Your task to perform on an android device: turn vacation reply on in the gmail app Image 0: 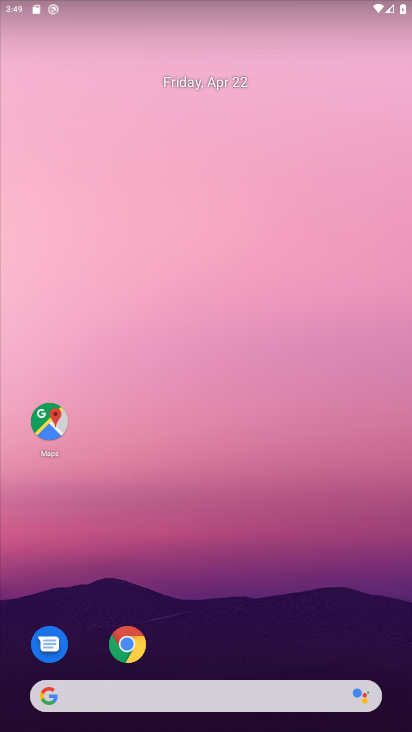
Step 0: drag from (158, 676) to (158, 270)
Your task to perform on an android device: turn vacation reply on in the gmail app Image 1: 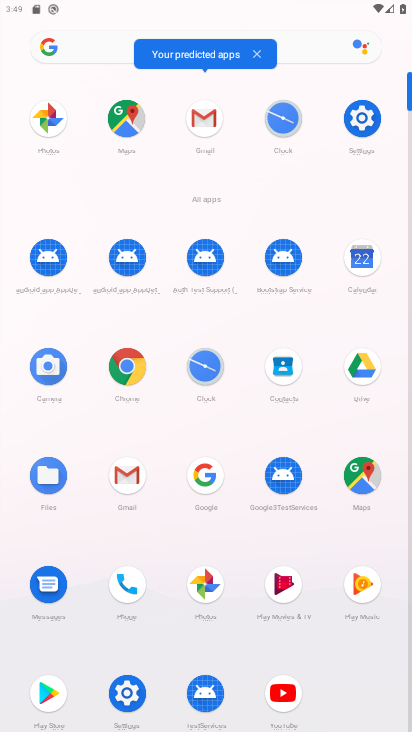
Step 1: click (117, 482)
Your task to perform on an android device: turn vacation reply on in the gmail app Image 2: 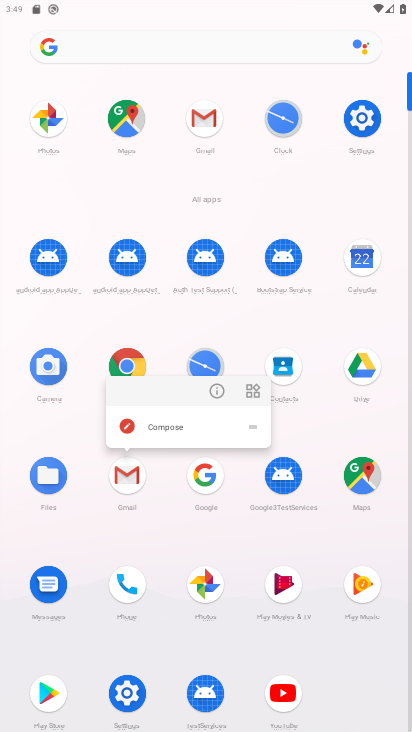
Step 2: click (127, 470)
Your task to perform on an android device: turn vacation reply on in the gmail app Image 3: 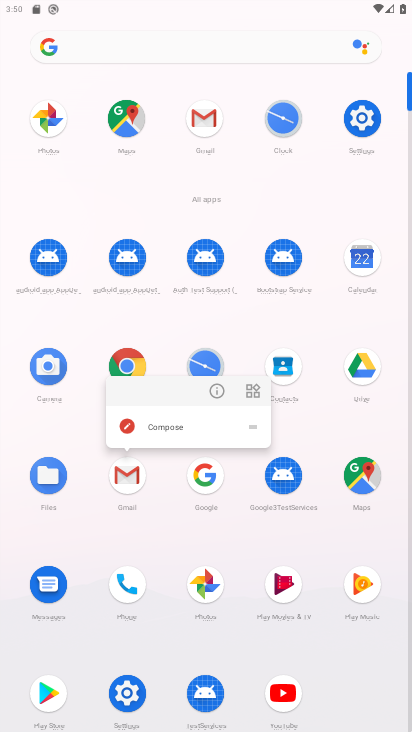
Step 3: click (129, 472)
Your task to perform on an android device: turn vacation reply on in the gmail app Image 4: 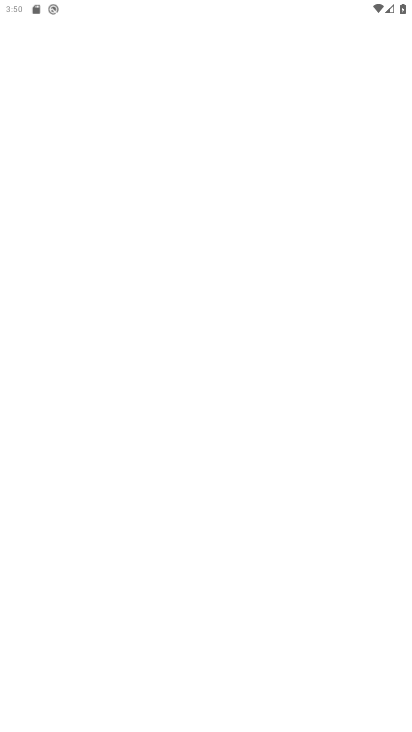
Step 4: click (129, 472)
Your task to perform on an android device: turn vacation reply on in the gmail app Image 5: 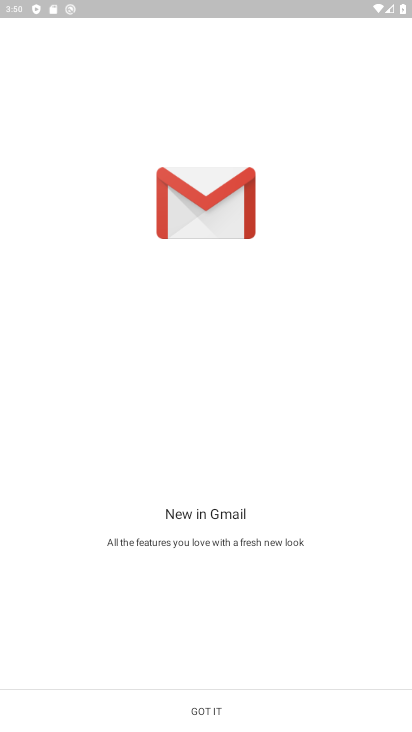
Step 5: click (201, 699)
Your task to perform on an android device: turn vacation reply on in the gmail app Image 6: 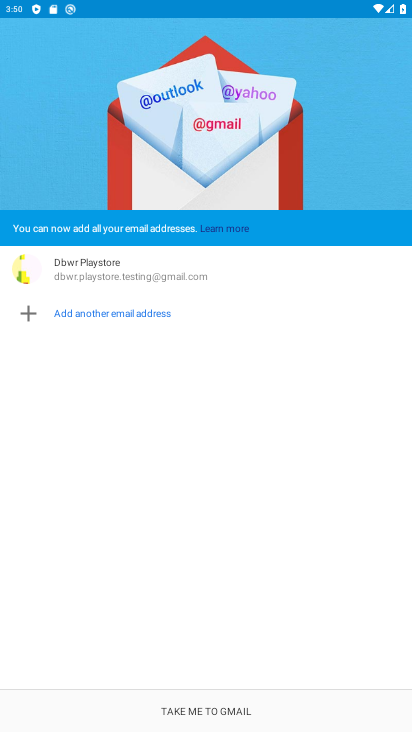
Step 6: click (196, 718)
Your task to perform on an android device: turn vacation reply on in the gmail app Image 7: 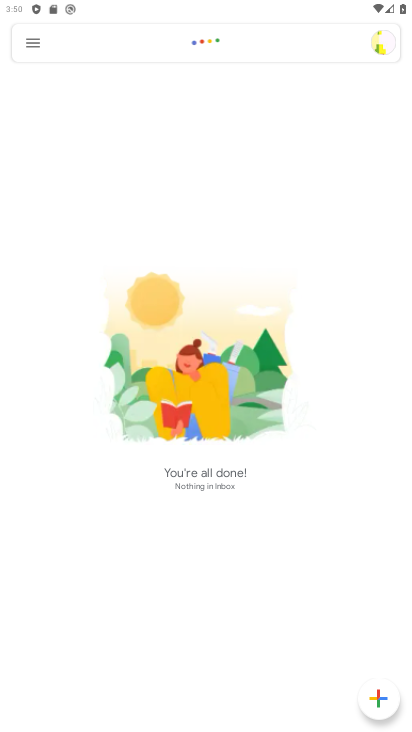
Step 7: click (39, 41)
Your task to perform on an android device: turn vacation reply on in the gmail app Image 8: 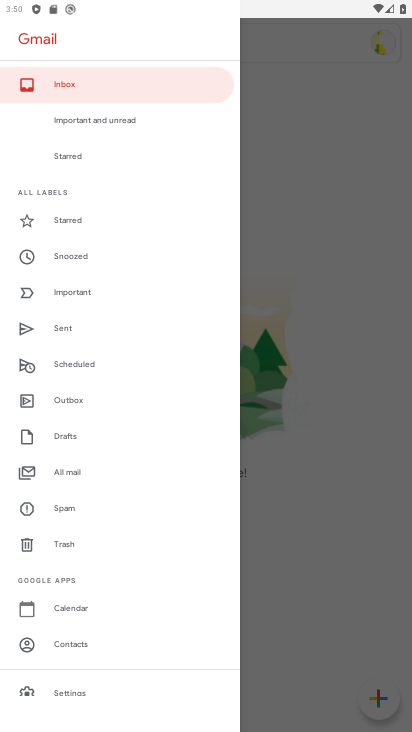
Step 8: click (69, 697)
Your task to perform on an android device: turn vacation reply on in the gmail app Image 9: 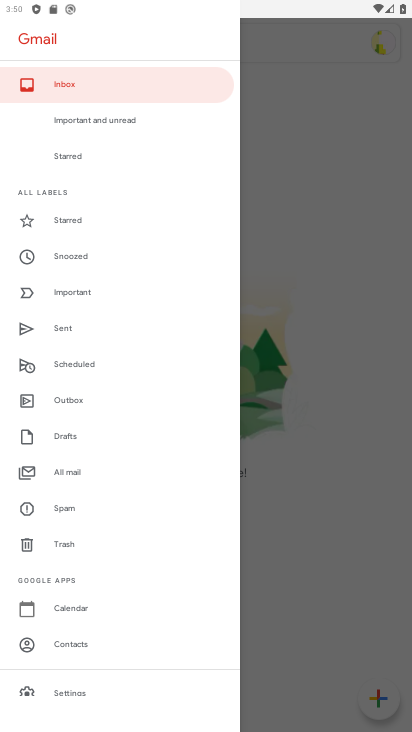
Step 9: click (69, 693)
Your task to perform on an android device: turn vacation reply on in the gmail app Image 10: 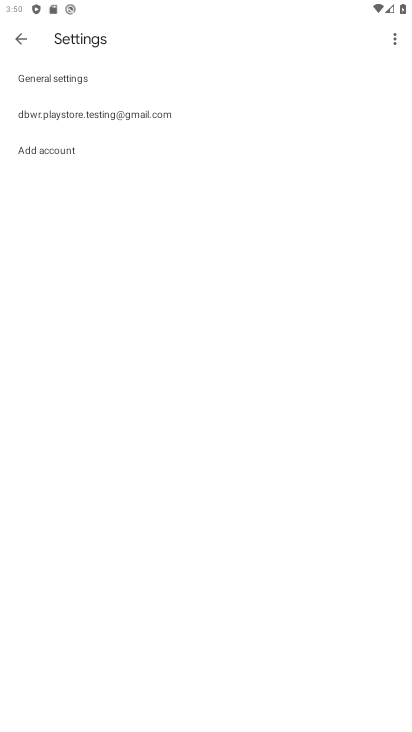
Step 10: click (125, 105)
Your task to perform on an android device: turn vacation reply on in the gmail app Image 11: 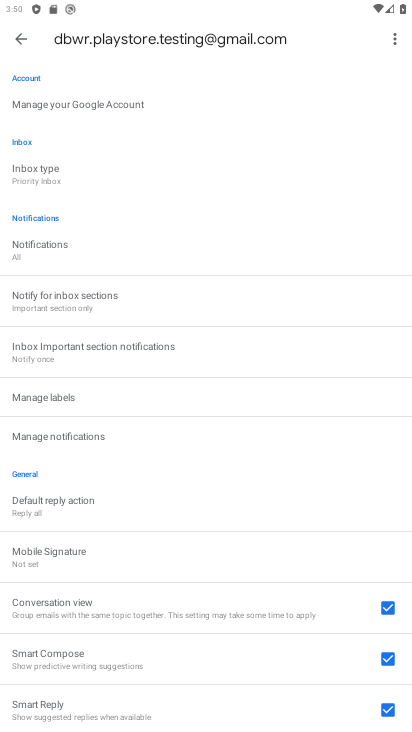
Step 11: drag from (80, 672) to (120, 409)
Your task to perform on an android device: turn vacation reply on in the gmail app Image 12: 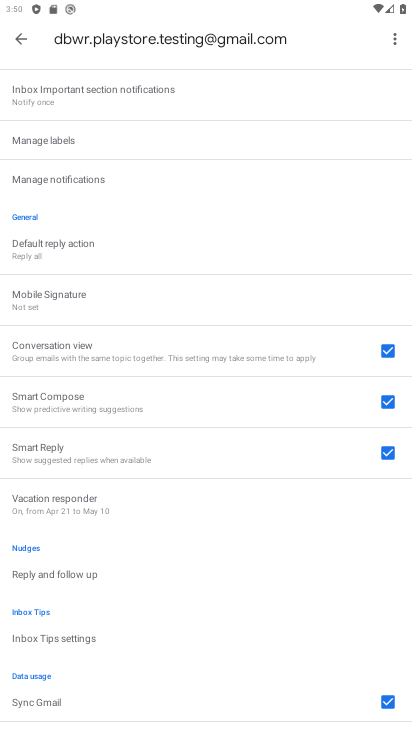
Step 12: click (72, 495)
Your task to perform on an android device: turn vacation reply on in the gmail app Image 13: 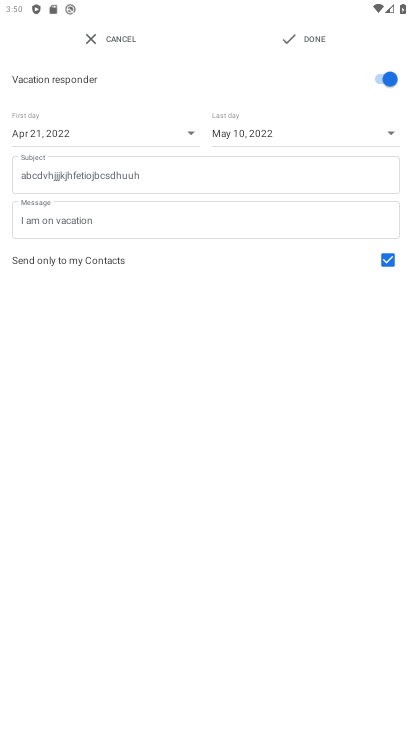
Step 13: click (316, 31)
Your task to perform on an android device: turn vacation reply on in the gmail app Image 14: 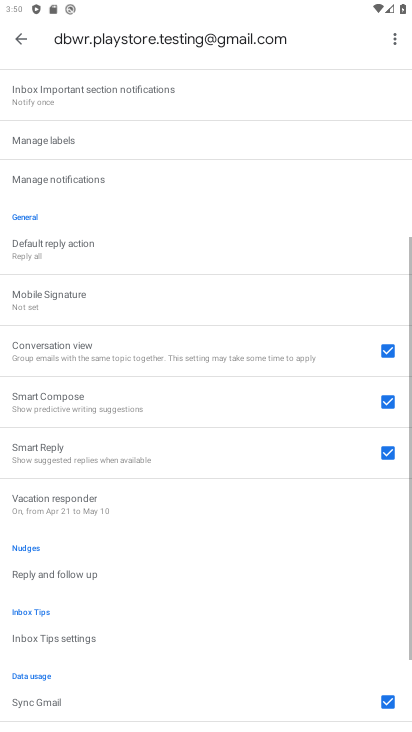
Step 14: task complete